Your task to perform on an android device: Open battery settings Image 0: 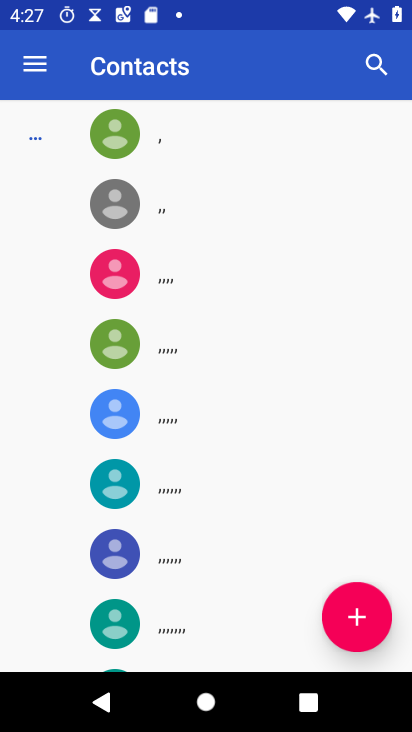
Step 0: press home button
Your task to perform on an android device: Open battery settings Image 1: 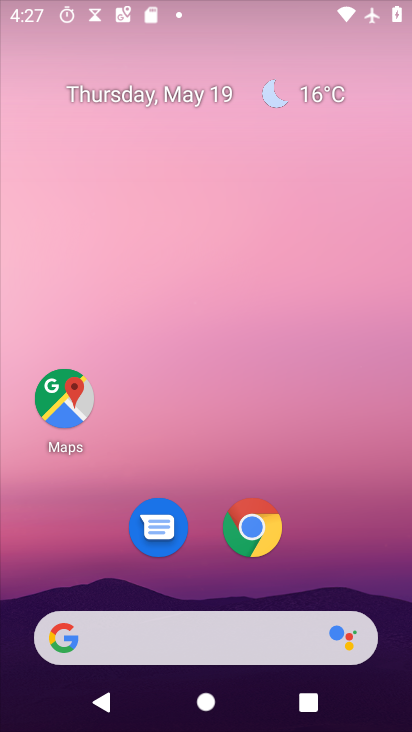
Step 1: drag from (361, 548) to (231, 8)
Your task to perform on an android device: Open battery settings Image 2: 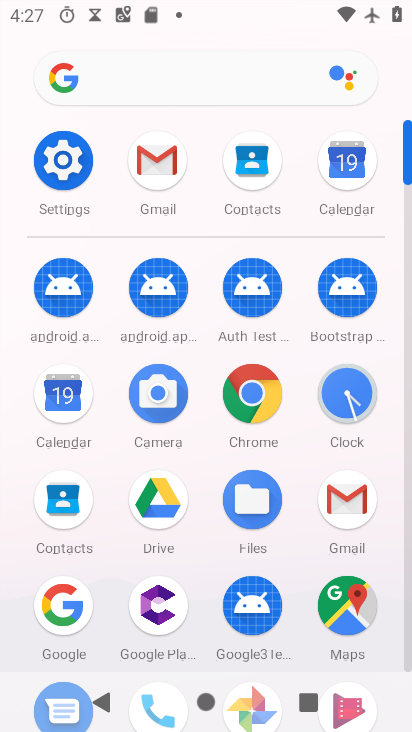
Step 2: click (89, 169)
Your task to perform on an android device: Open battery settings Image 3: 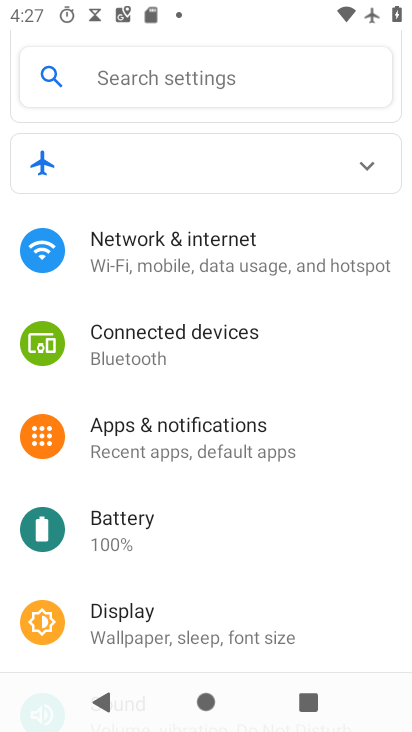
Step 3: click (197, 530)
Your task to perform on an android device: Open battery settings Image 4: 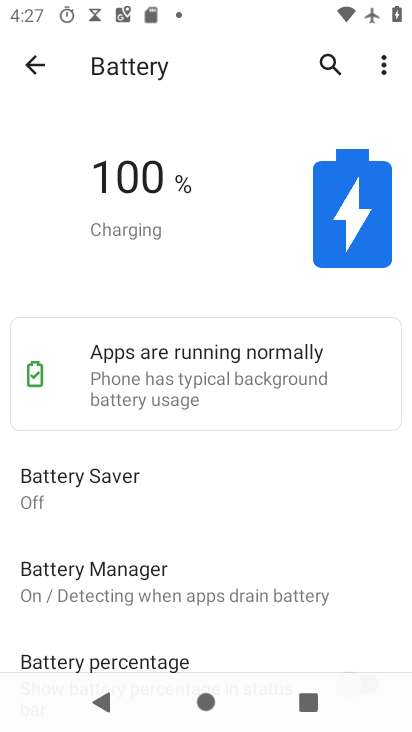
Step 4: task complete